Your task to perform on an android device: add a contact in the contacts app Image 0: 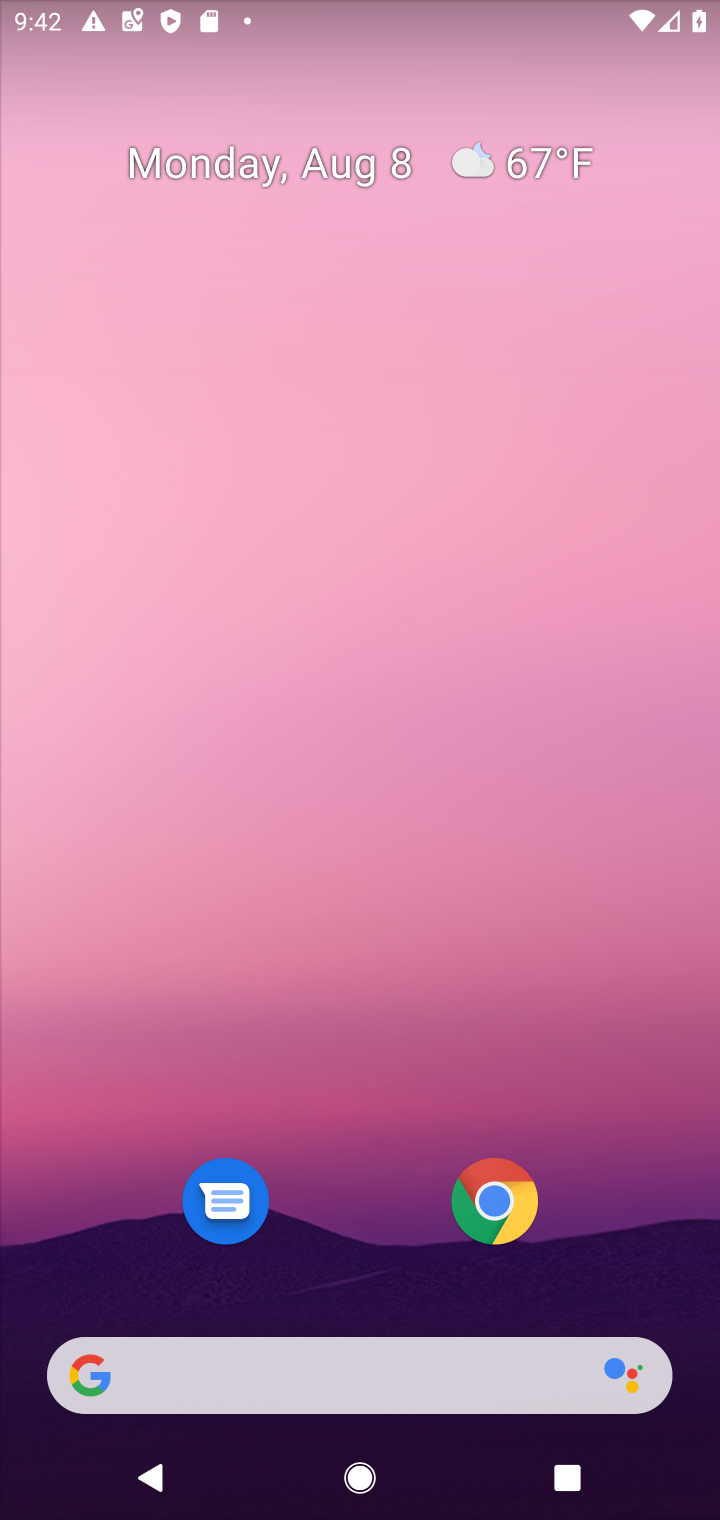
Step 0: drag from (380, 1183) to (426, 484)
Your task to perform on an android device: add a contact in the contacts app Image 1: 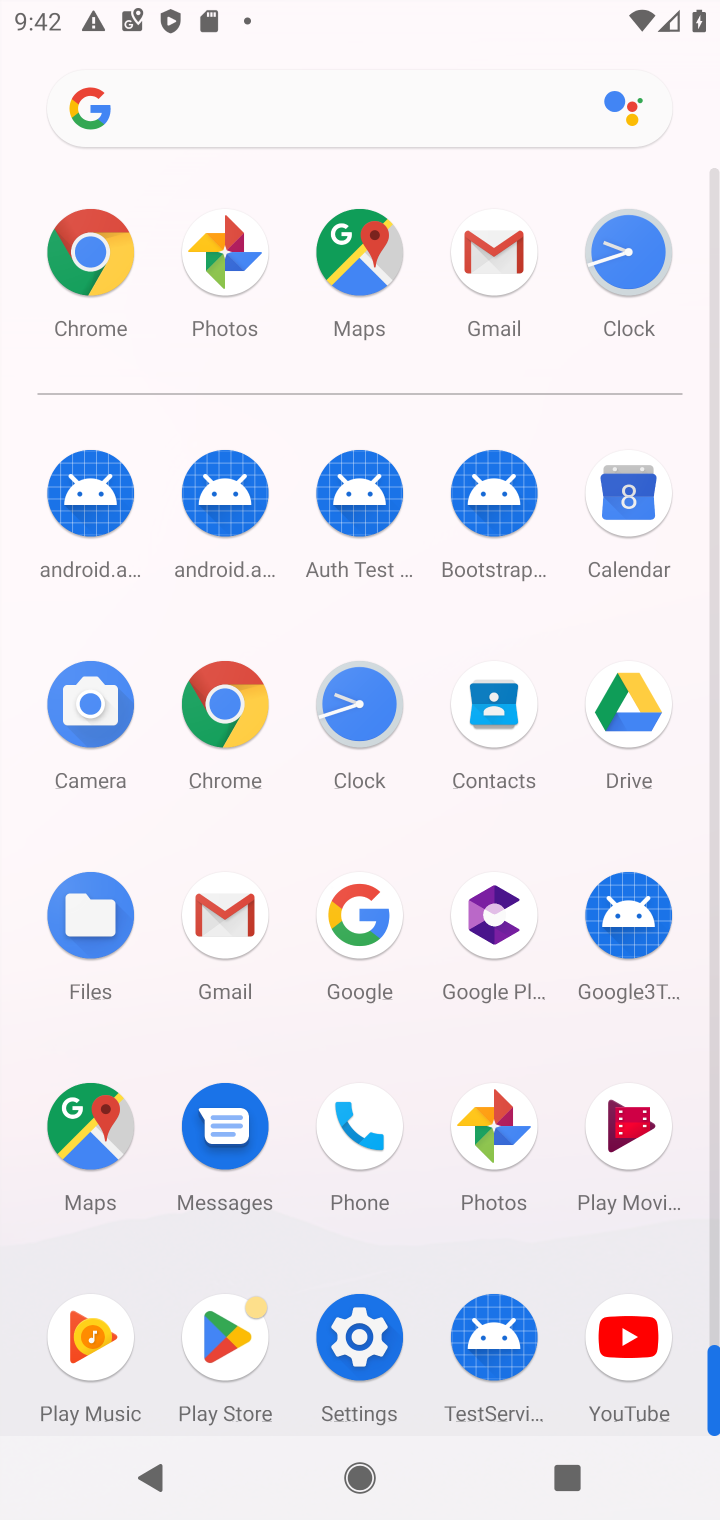
Step 1: click (484, 711)
Your task to perform on an android device: add a contact in the contacts app Image 2: 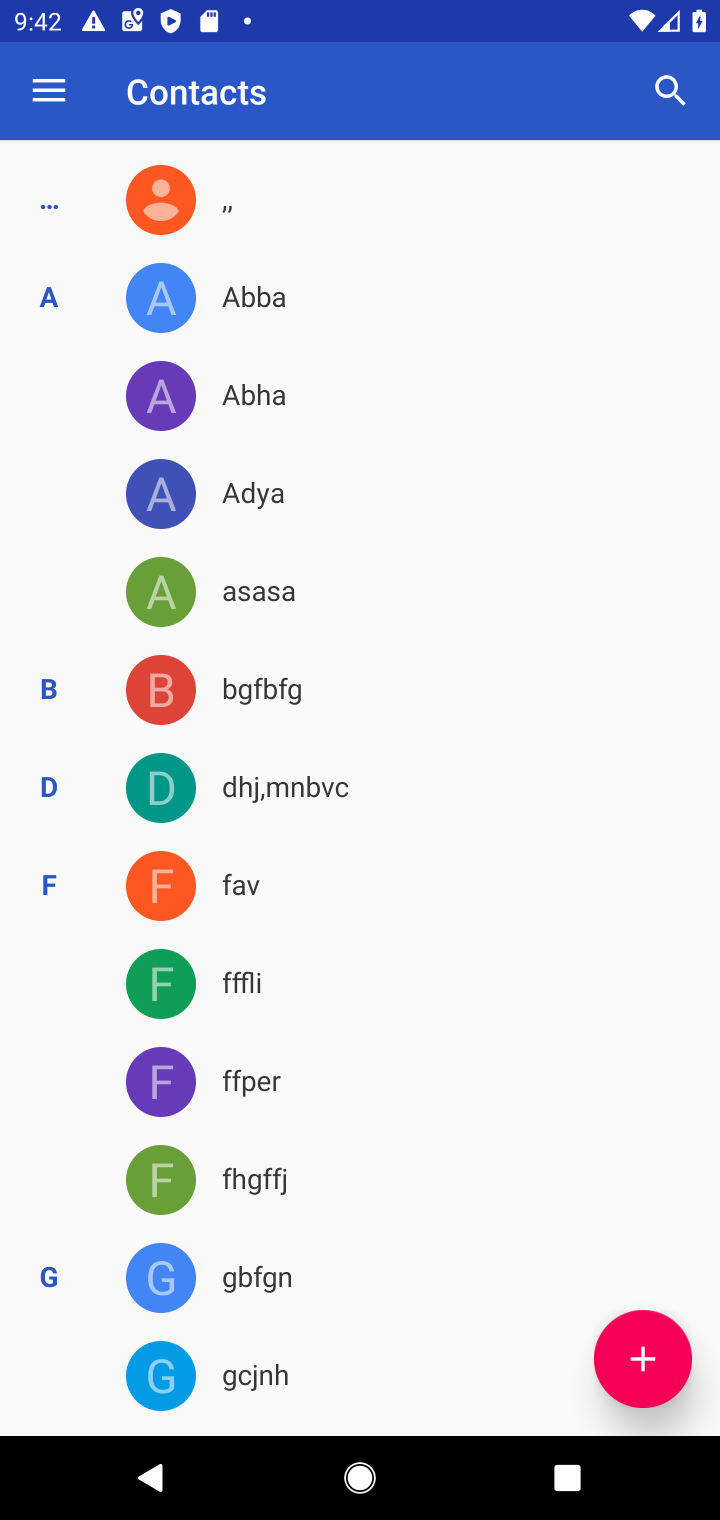
Step 2: click (653, 1359)
Your task to perform on an android device: add a contact in the contacts app Image 3: 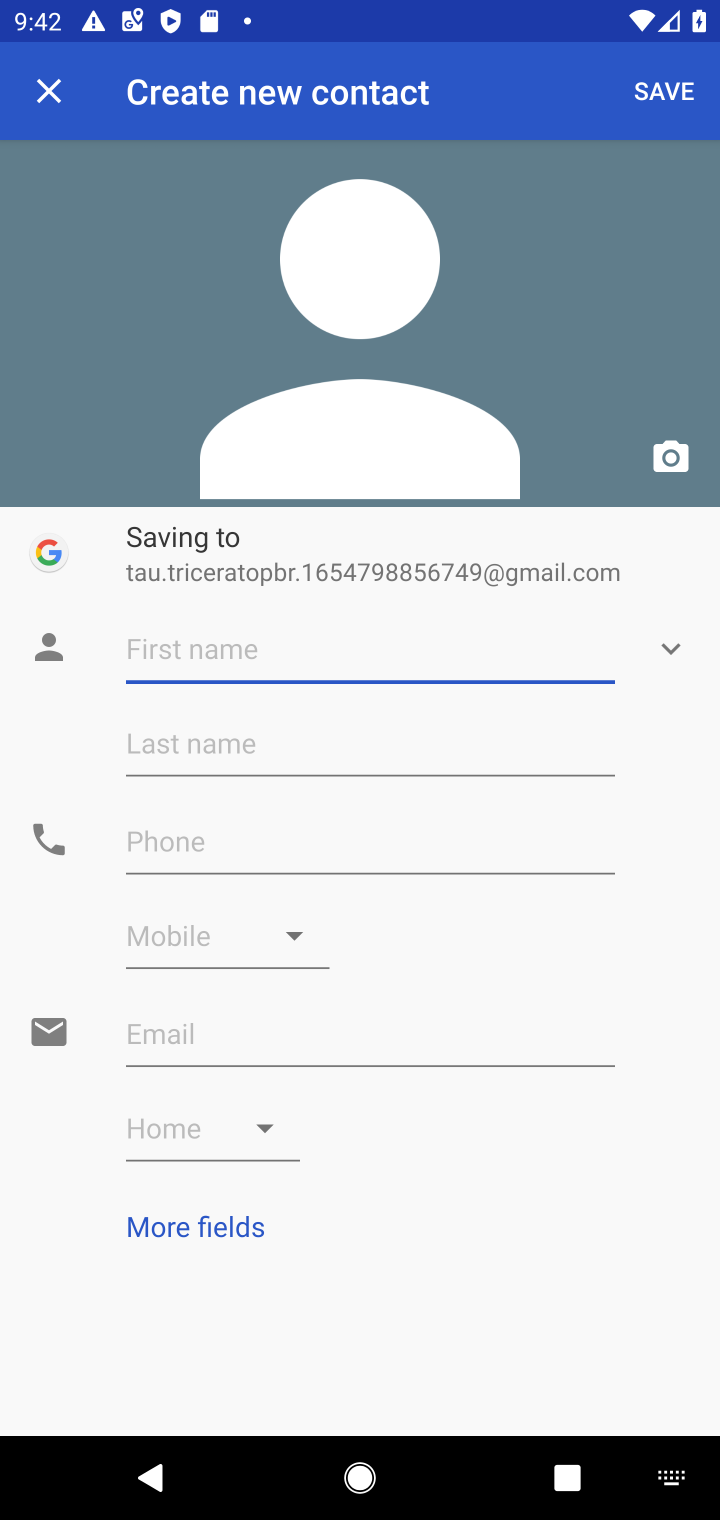
Step 3: type "lolo"
Your task to perform on an android device: add a contact in the contacts app Image 4: 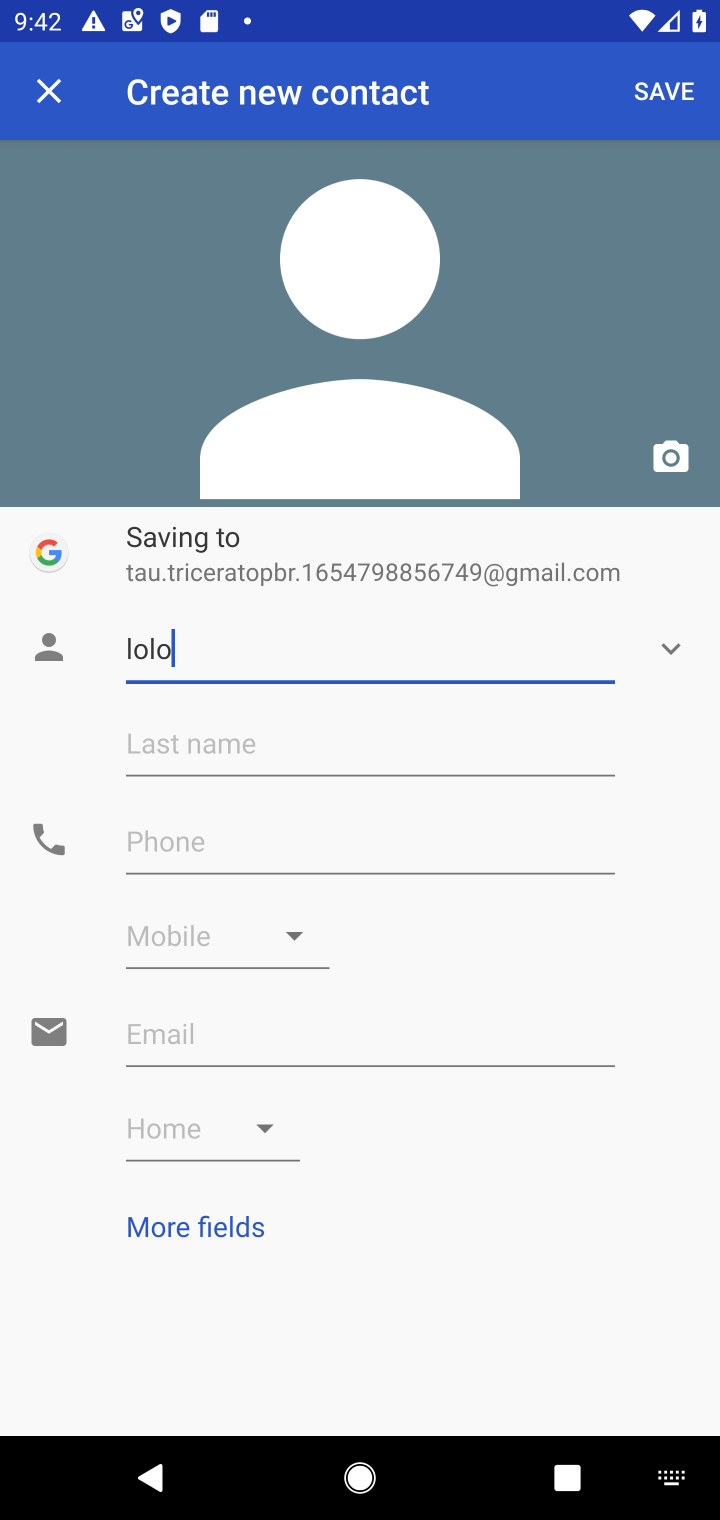
Step 4: click (544, 826)
Your task to perform on an android device: add a contact in the contacts app Image 5: 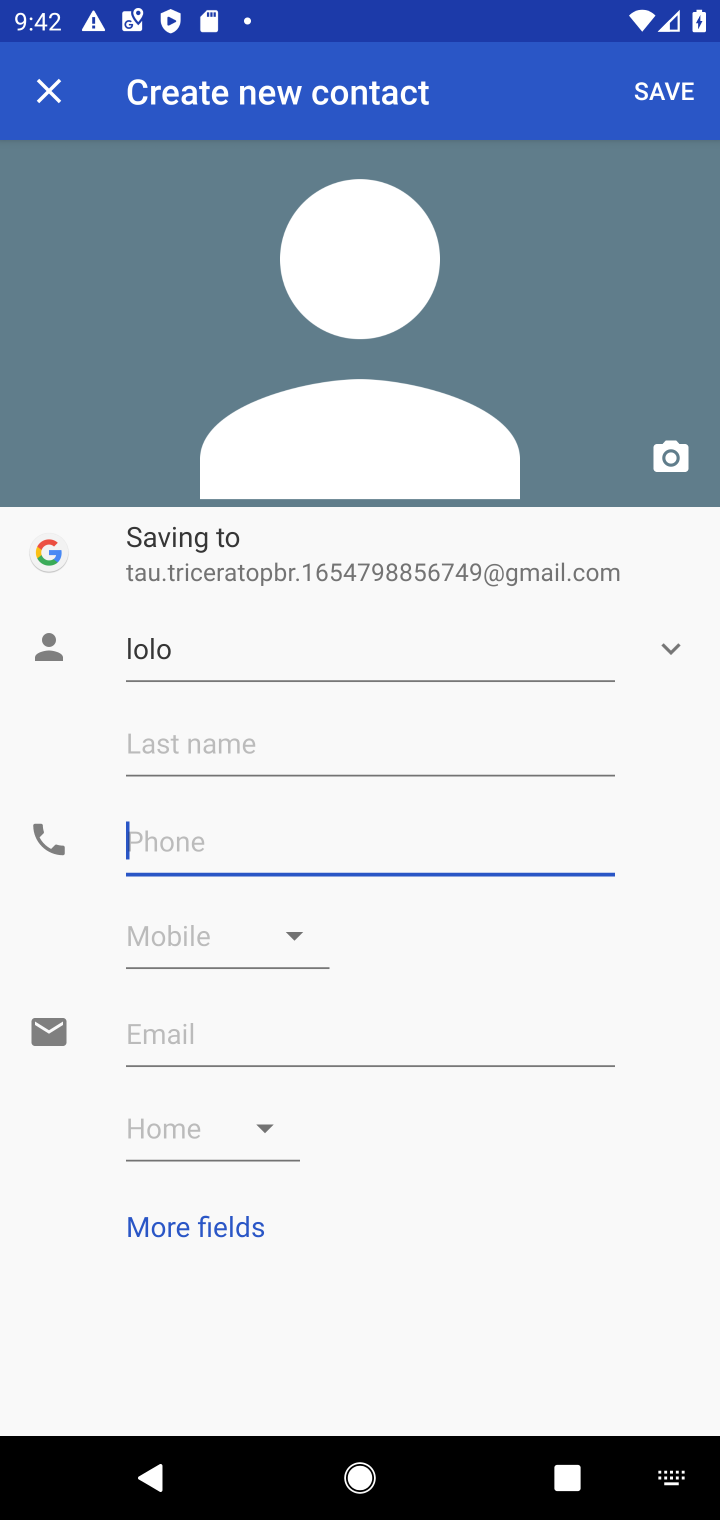
Step 5: type "4567899"
Your task to perform on an android device: add a contact in the contacts app Image 6: 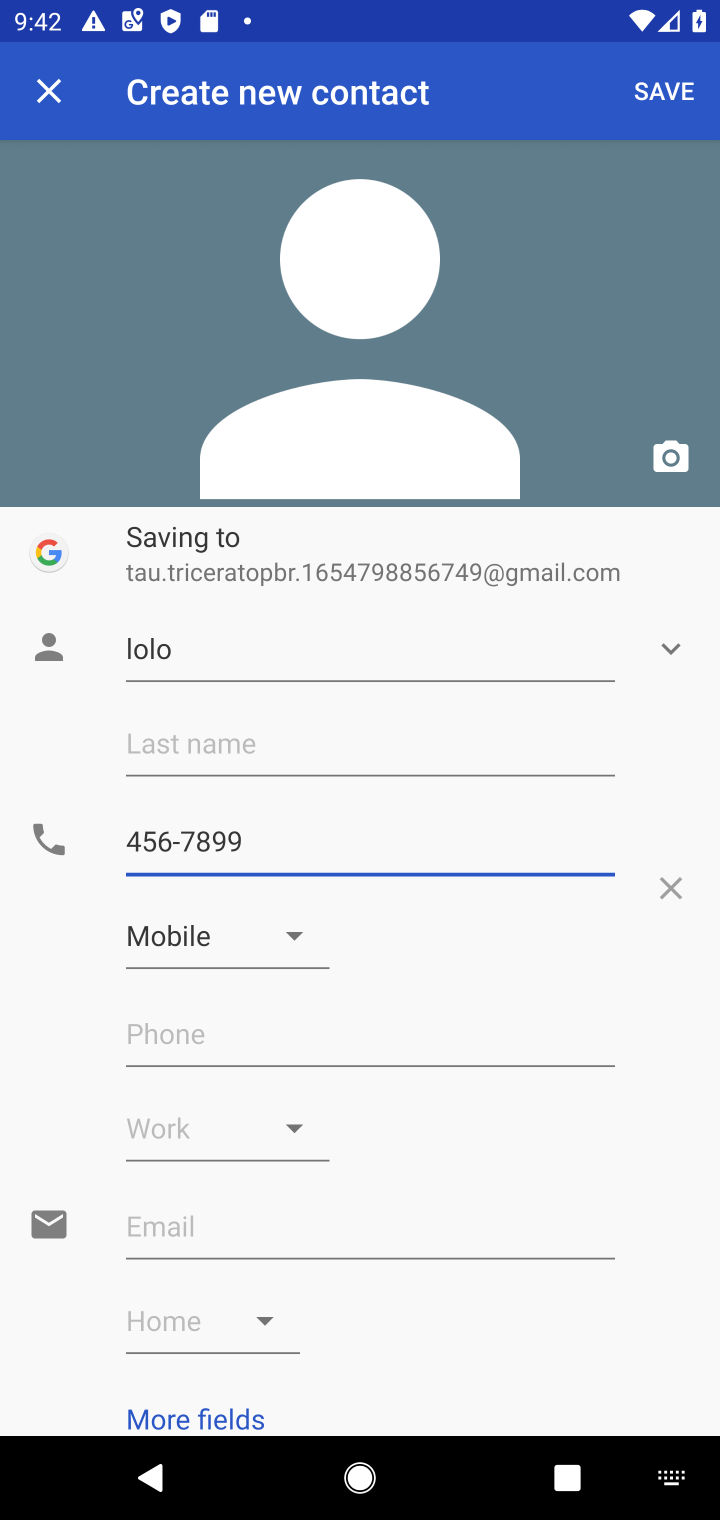
Step 6: click (660, 90)
Your task to perform on an android device: add a contact in the contacts app Image 7: 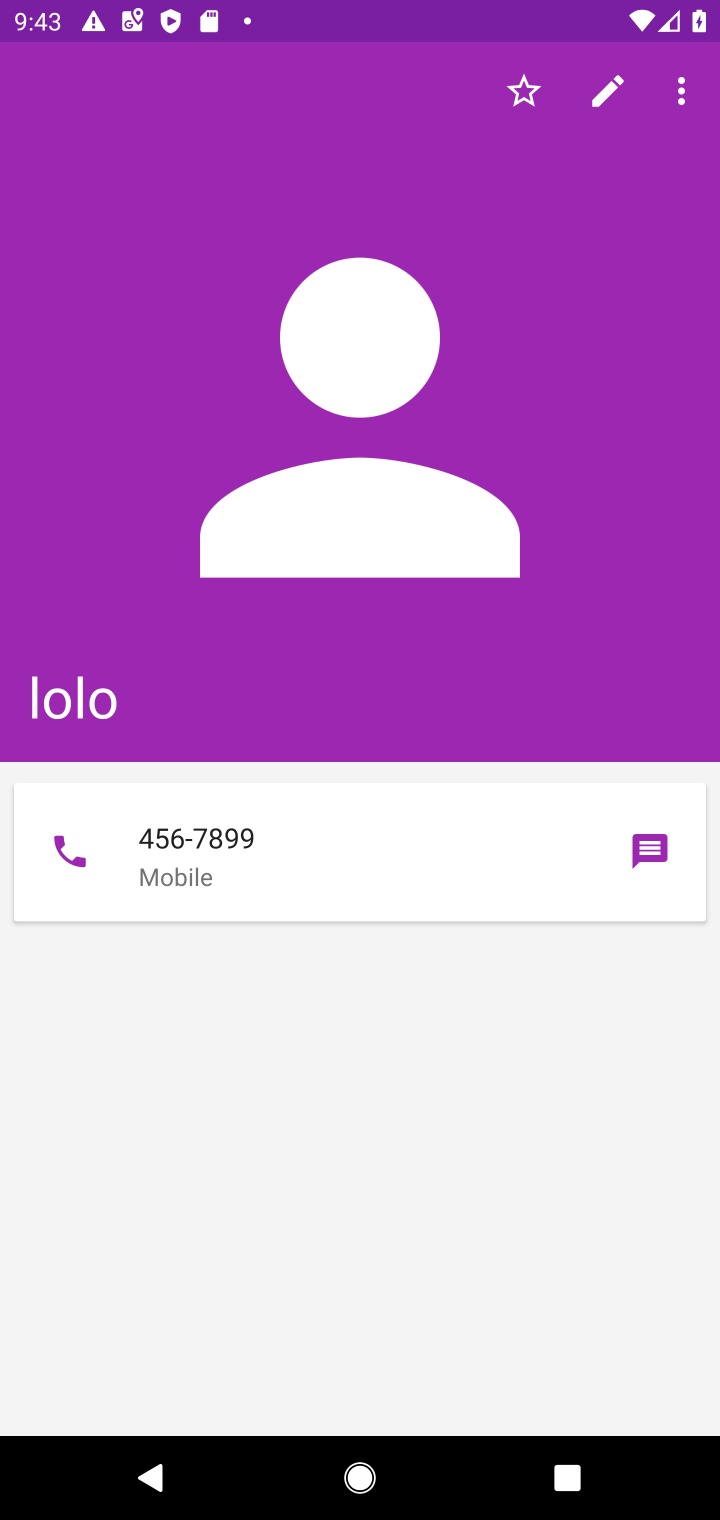
Step 7: task complete